Your task to perform on an android device: Open Youtube and go to the subscriptions tab Image 0: 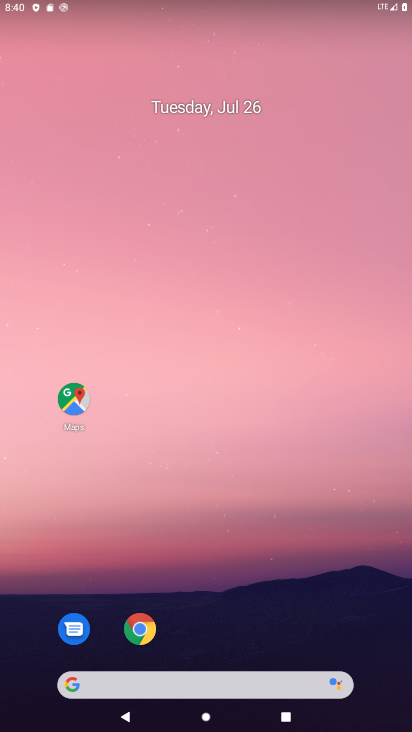
Step 0: drag from (231, 645) to (206, 8)
Your task to perform on an android device: Open Youtube and go to the subscriptions tab Image 1: 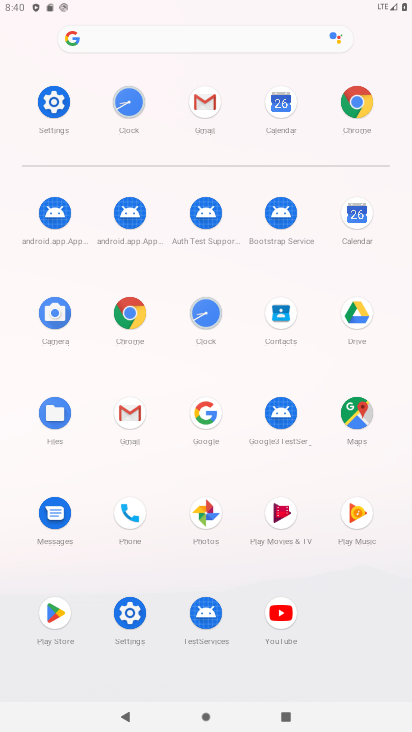
Step 1: click (293, 631)
Your task to perform on an android device: Open Youtube and go to the subscriptions tab Image 2: 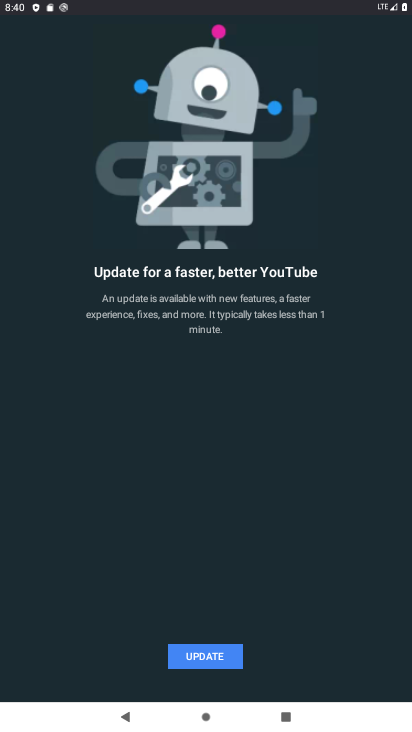
Step 2: click (224, 644)
Your task to perform on an android device: Open Youtube and go to the subscriptions tab Image 3: 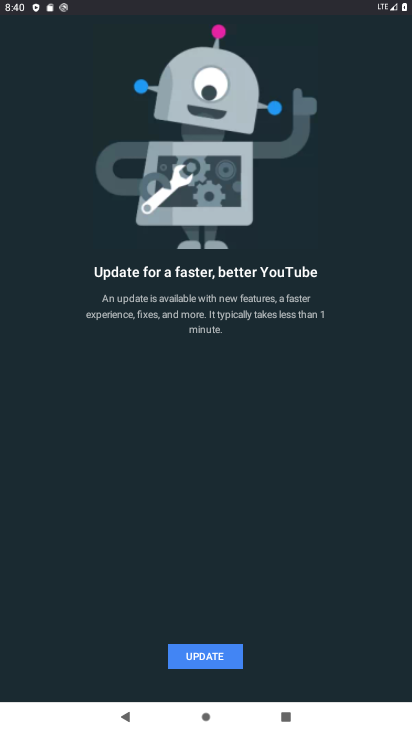
Step 3: click (233, 672)
Your task to perform on an android device: Open Youtube and go to the subscriptions tab Image 4: 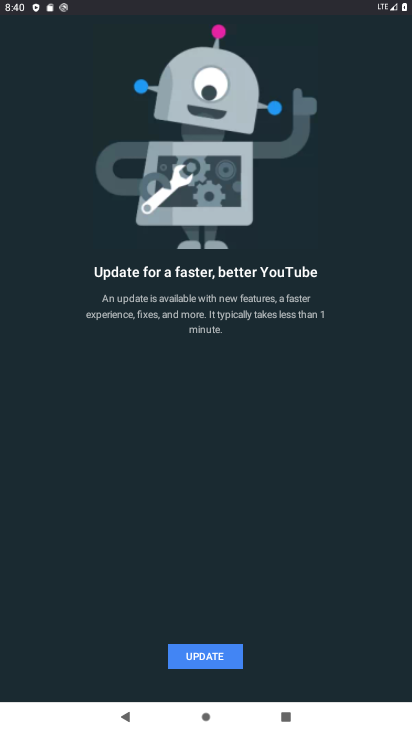
Step 4: click (224, 652)
Your task to perform on an android device: Open Youtube and go to the subscriptions tab Image 5: 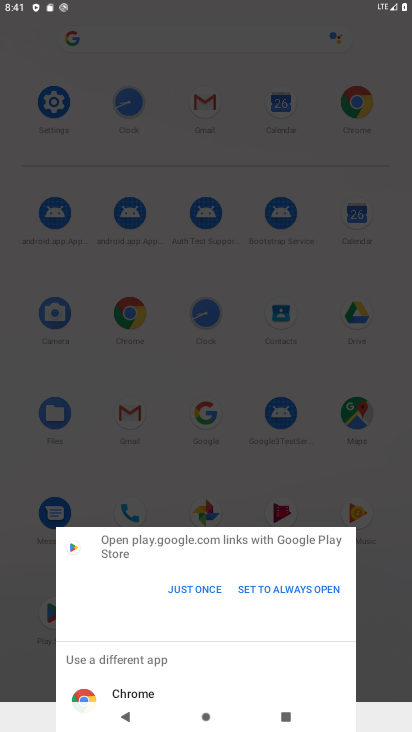
Step 5: click (180, 583)
Your task to perform on an android device: Open Youtube and go to the subscriptions tab Image 6: 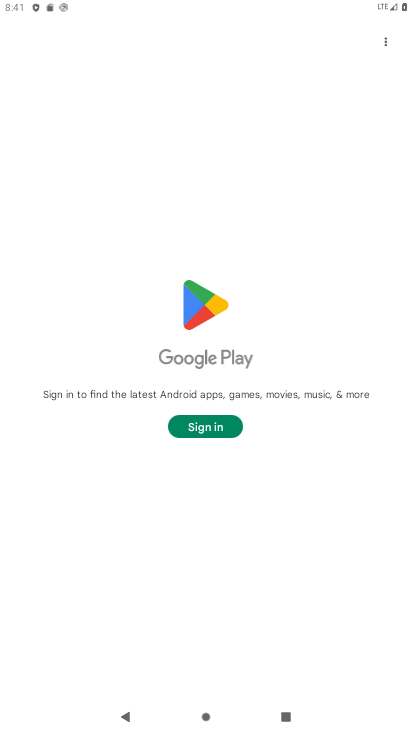
Step 6: task complete